Your task to perform on an android device: toggle translation in the chrome app Image 0: 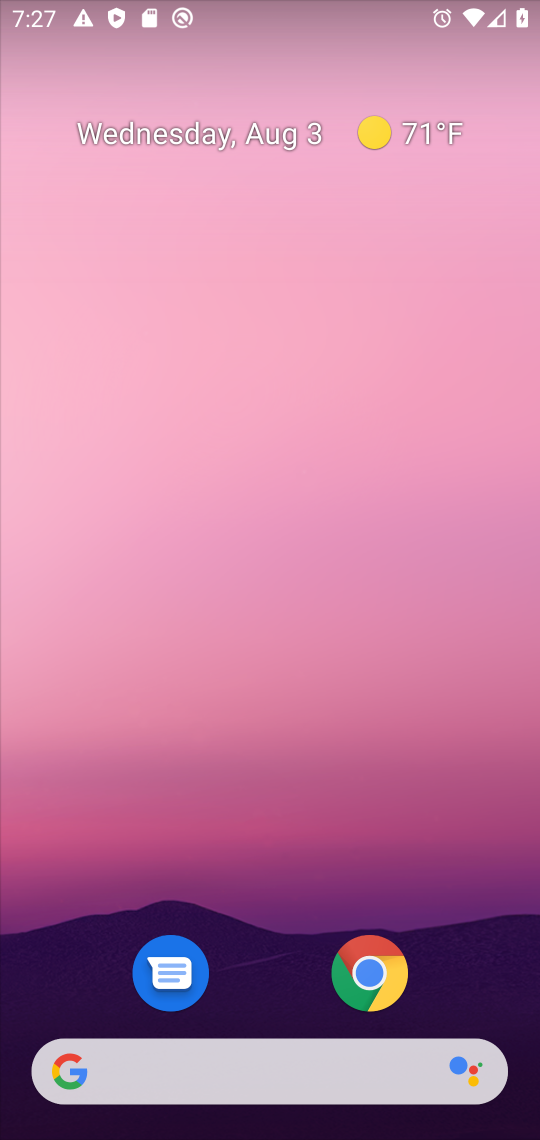
Step 0: click (369, 978)
Your task to perform on an android device: toggle translation in the chrome app Image 1: 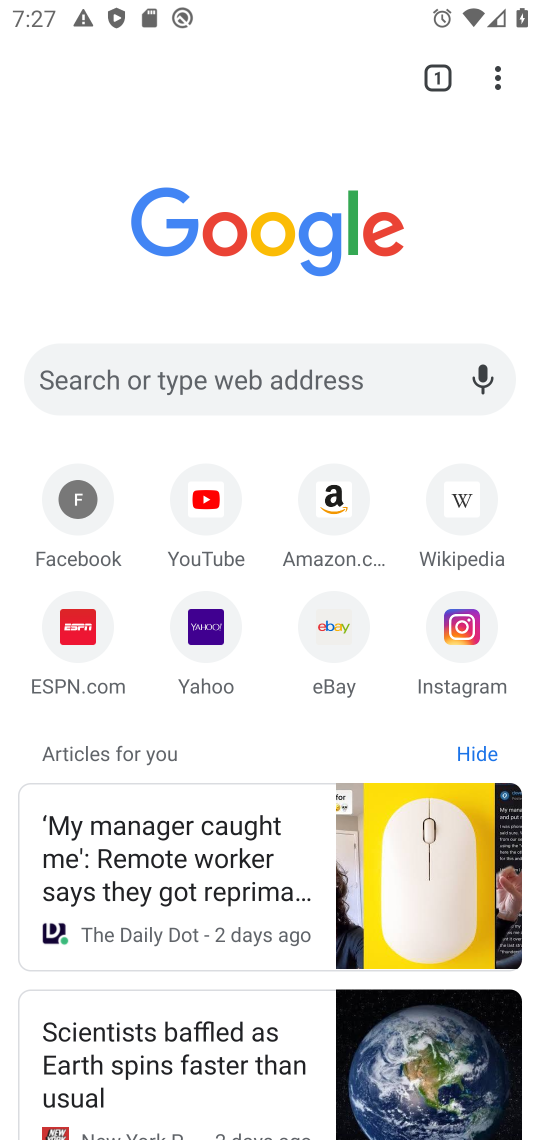
Step 1: click (502, 75)
Your task to perform on an android device: toggle translation in the chrome app Image 2: 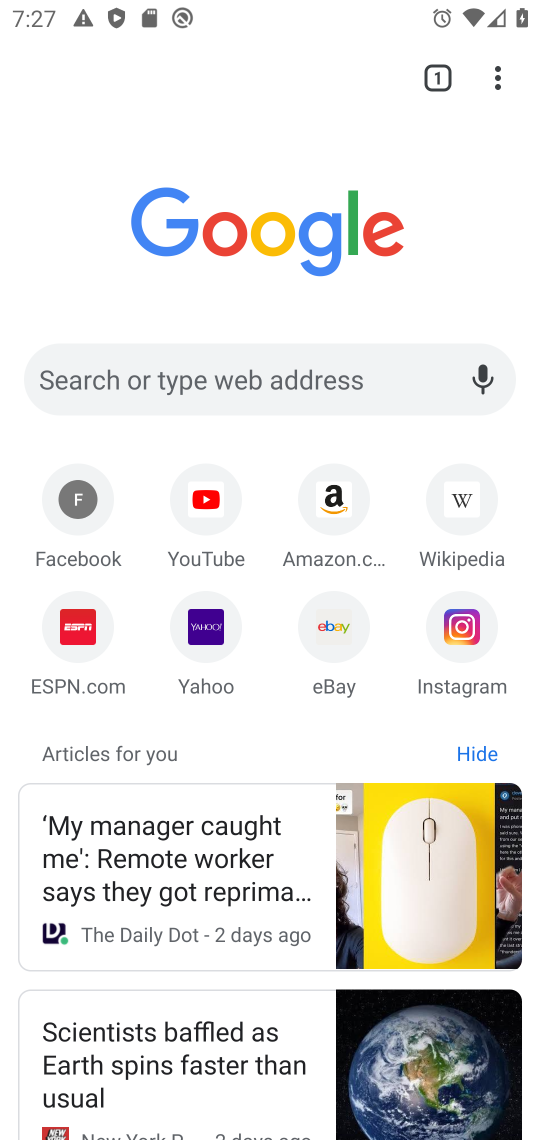
Step 2: click (496, 73)
Your task to perform on an android device: toggle translation in the chrome app Image 3: 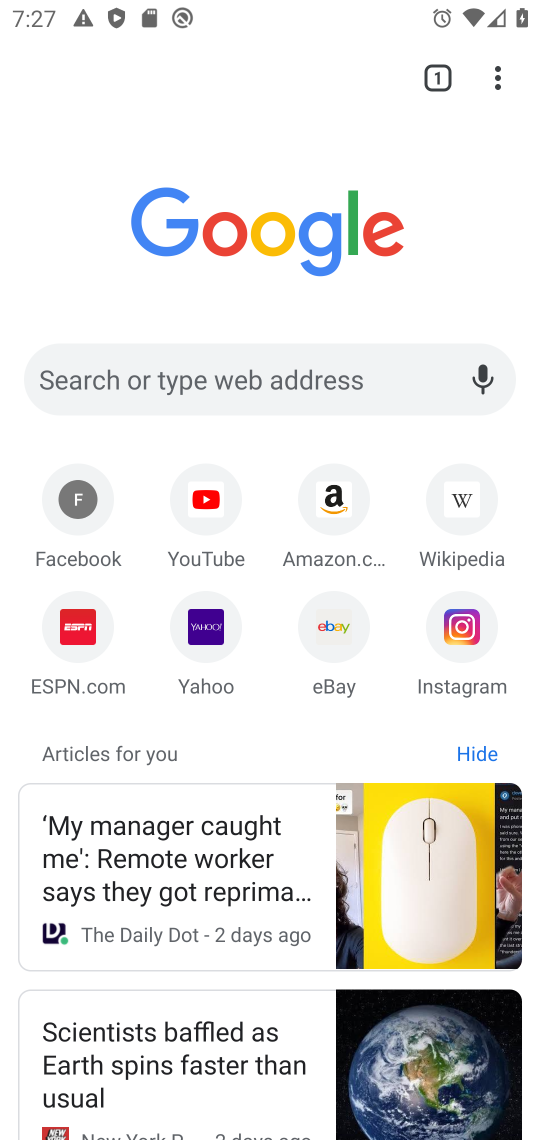
Step 3: click (498, 83)
Your task to perform on an android device: toggle translation in the chrome app Image 4: 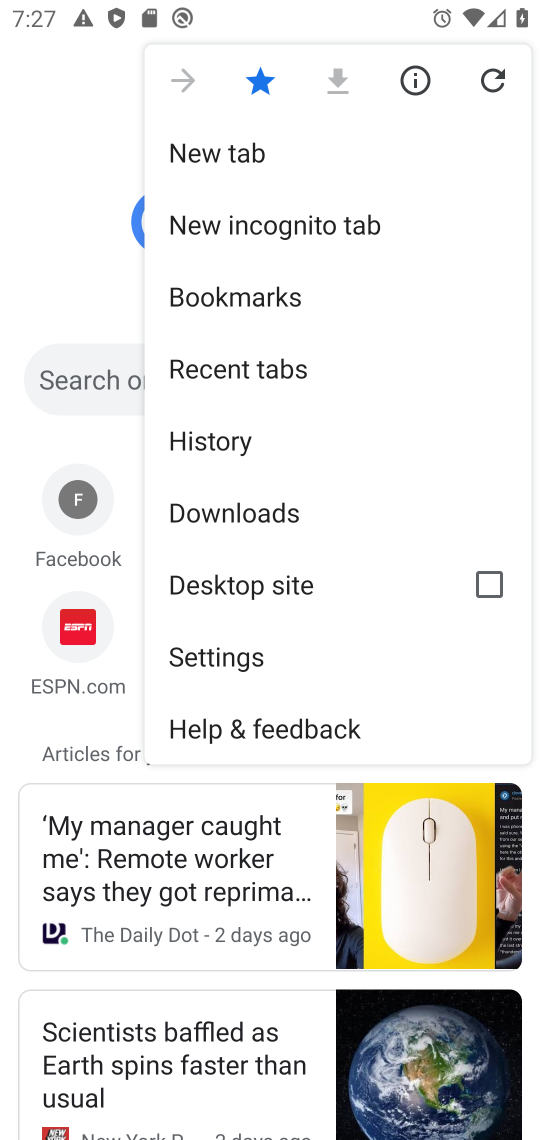
Step 4: click (228, 647)
Your task to perform on an android device: toggle translation in the chrome app Image 5: 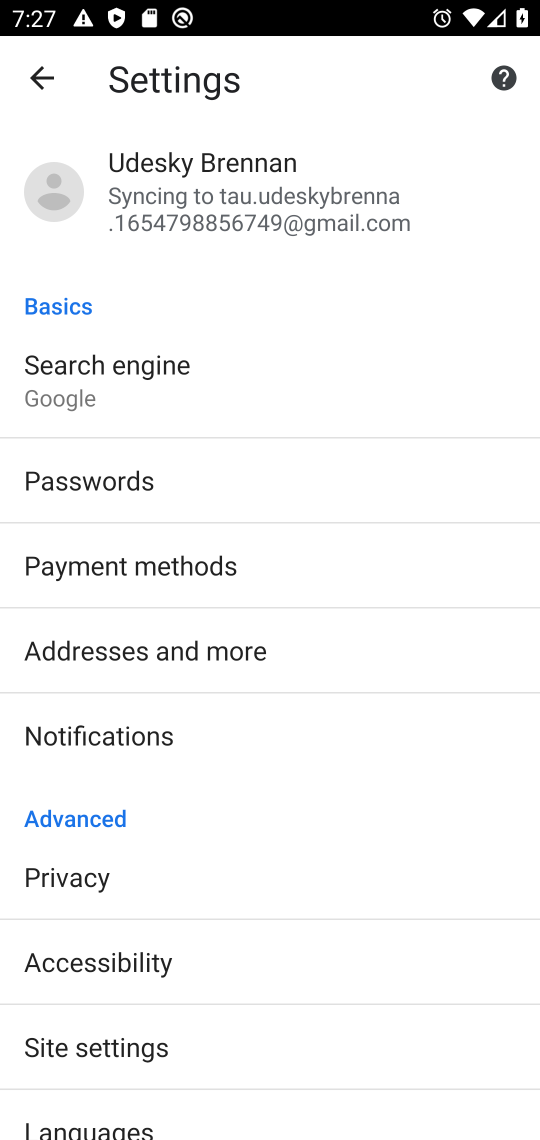
Step 5: click (83, 1120)
Your task to perform on an android device: toggle translation in the chrome app Image 6: 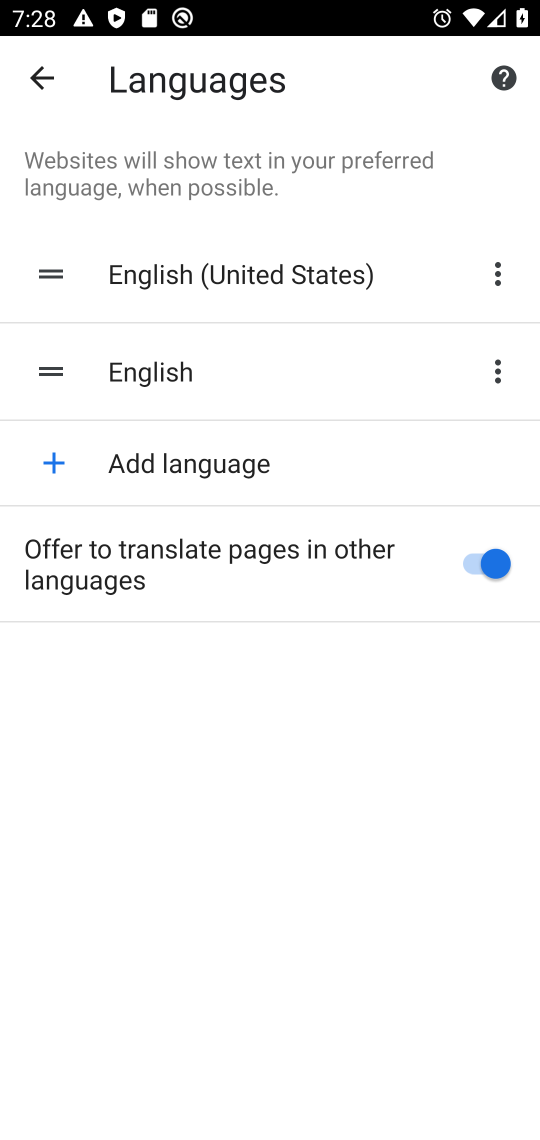
Step 6: click (474, 569)
Your task to perform on an android device: toggle translation in the chrome app Image 7: 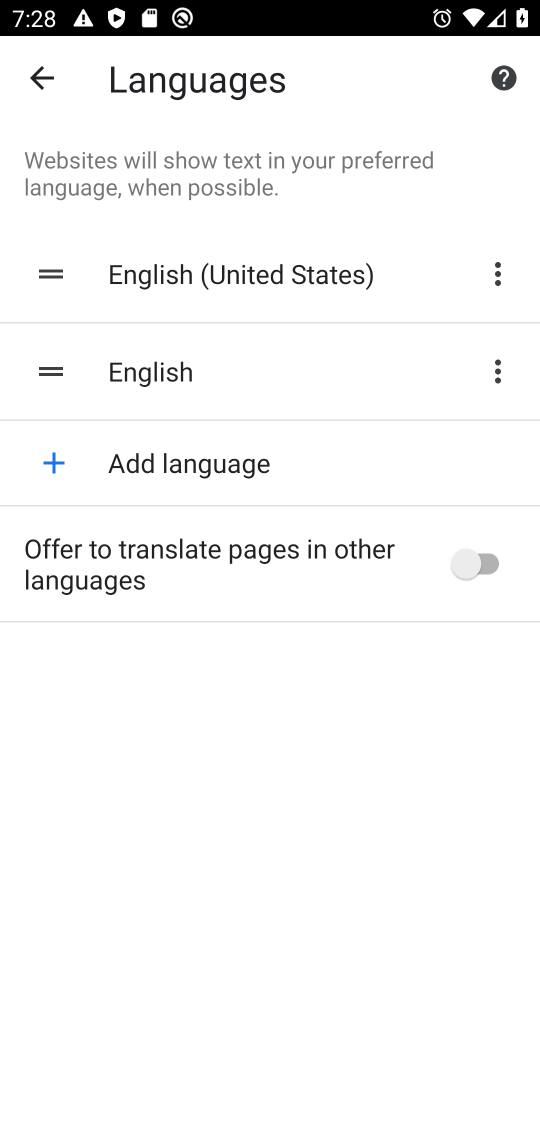
Step 7: task complete